Your task to perform on an android device: When is my next appointment? Image 0: 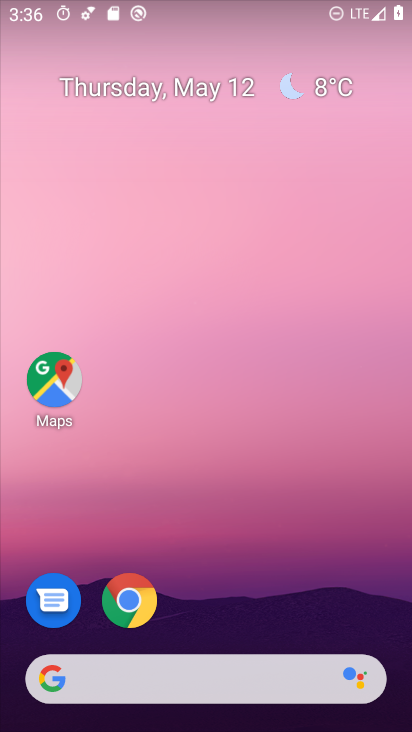
Step 0: drag from (208, 726) to (201, 214)
Your task to perform on an android device: When is my next appointment? Image 1: 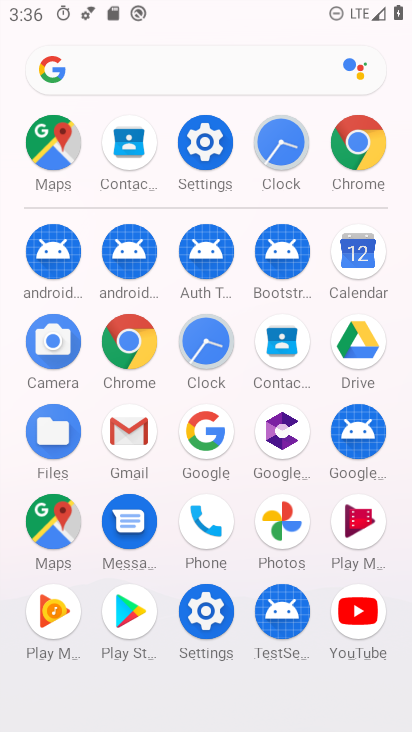
Step 1: click (360, 253)
Your task to perform on an android device: When is my next appointment? Image 2: 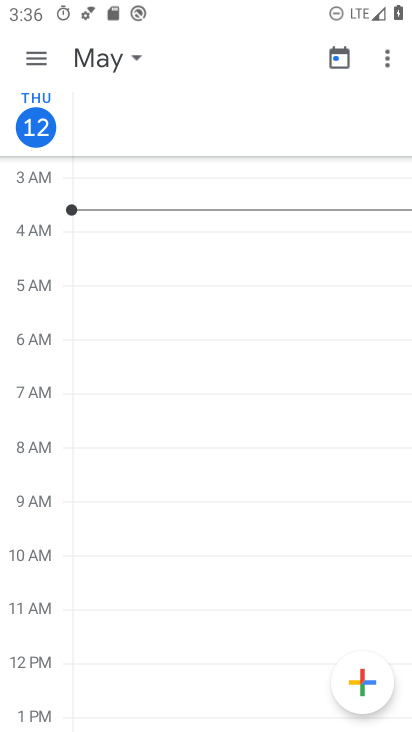
Step 2: click (90, 52)
Your task to perform on an android device: When is my next appointment? Image 3: 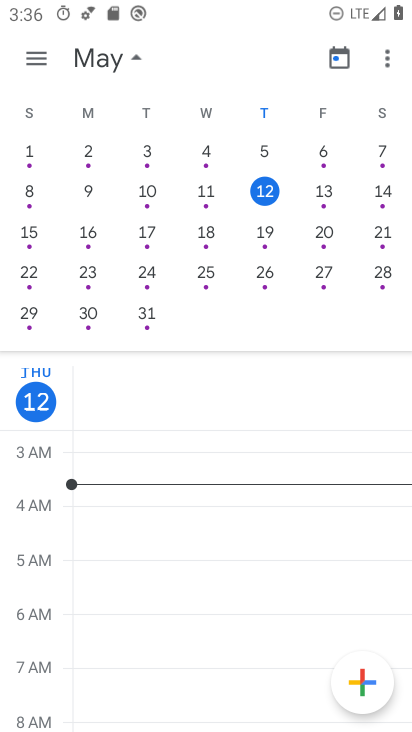
Step 3: click (328, 192)
Your task to perform on an android device: When is my next appointment? Image 4: 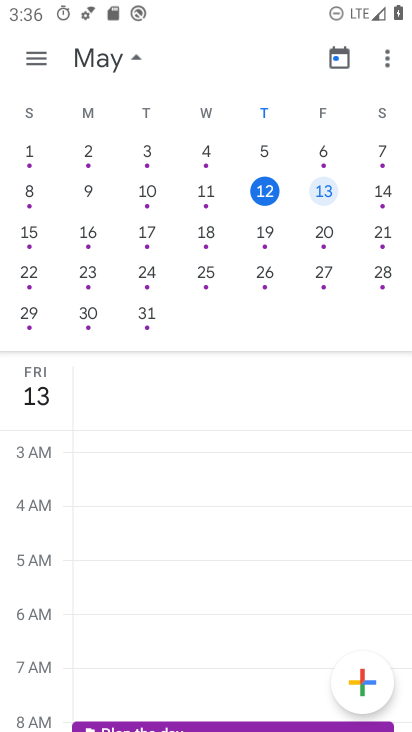
Step 4: click (132, 53)
Your task to perform on an android device: When is my next appointment? Image 5: 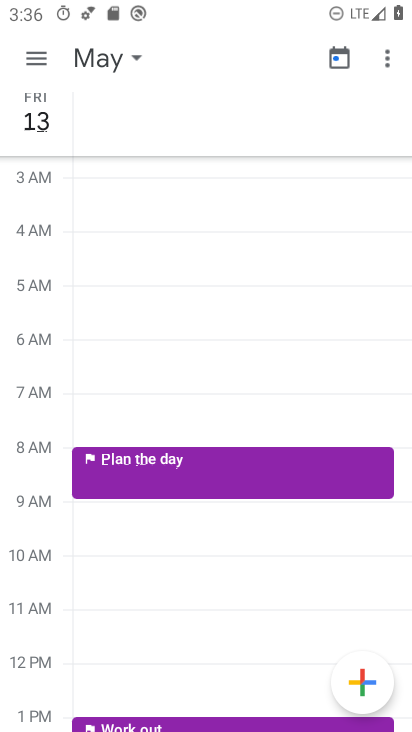
Step 5: click (130, 56)
Your task to perform on an android device: When is my next appointment? Image 6: 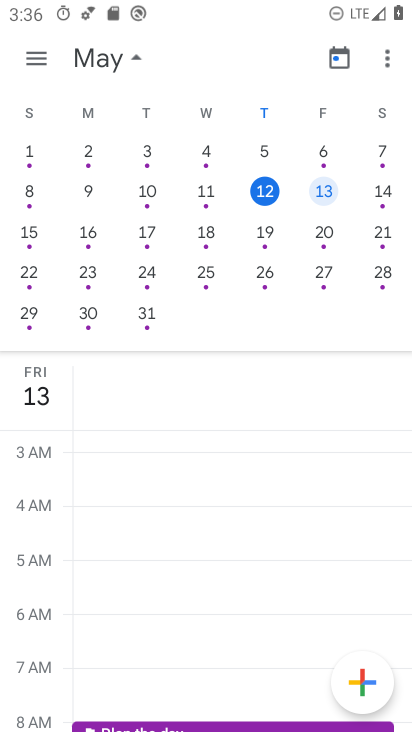
Step 6: task complete